Your task to perform on an android device: turn on the 24-hour format for clock Image 0: 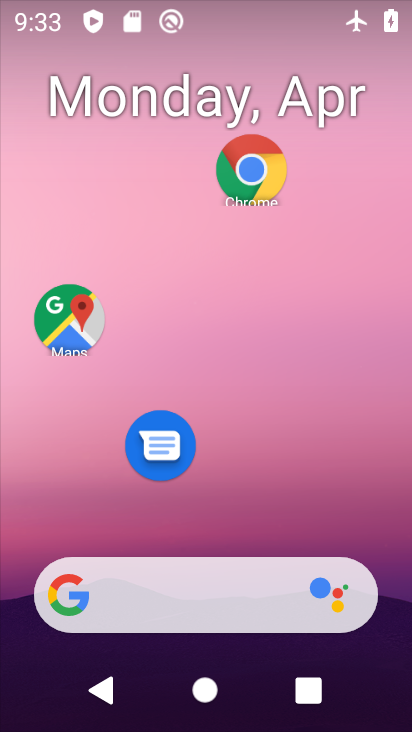
Step 0: drag from (219, 530) to (199, 140)
Your task to perform on an android device: turn on the 24-hour format for clock Image 1: 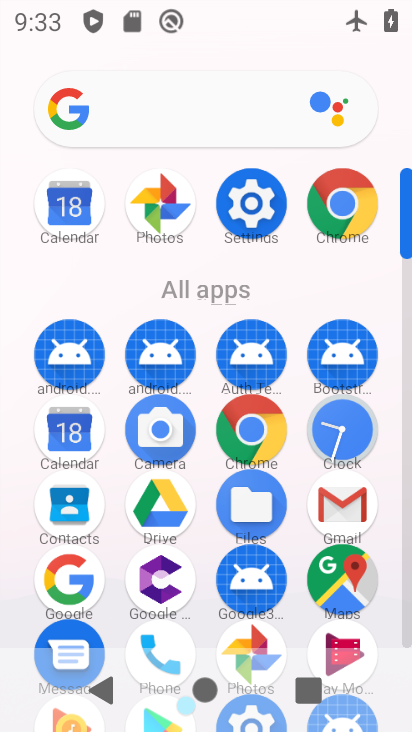
Step 1: click (332, 416)
Your task to perform on an android device: turn on the 24-hour format for clock Image 2: 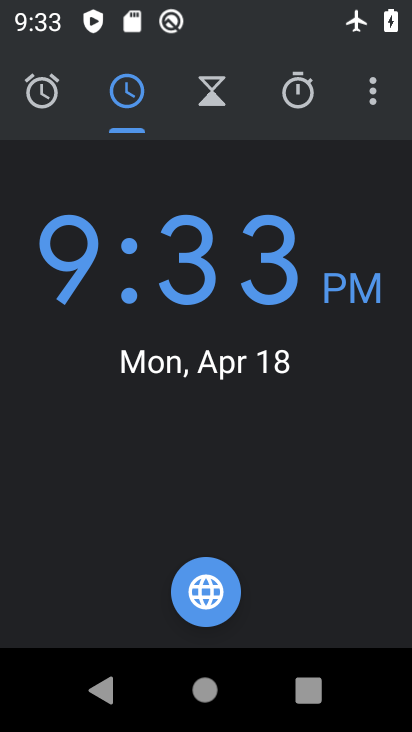
Step 2: click (378, 90)
Your task to perform on an android device: turn on the 24-hour format for clock Image 3: 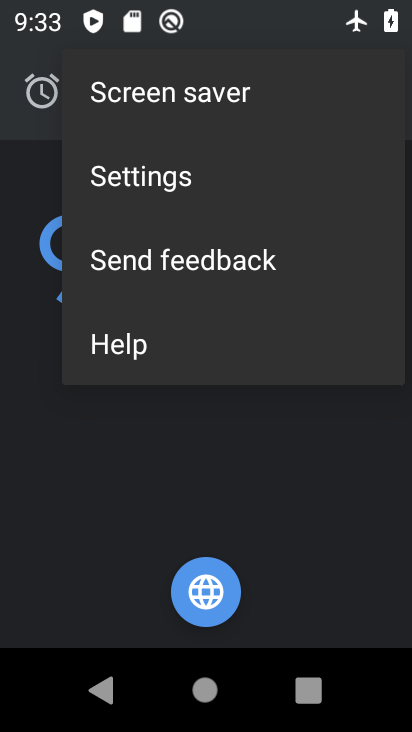
Step 3: click (187, 173)
Your task to perform on an android device: turn on the 24-hour format for clock Image 4: 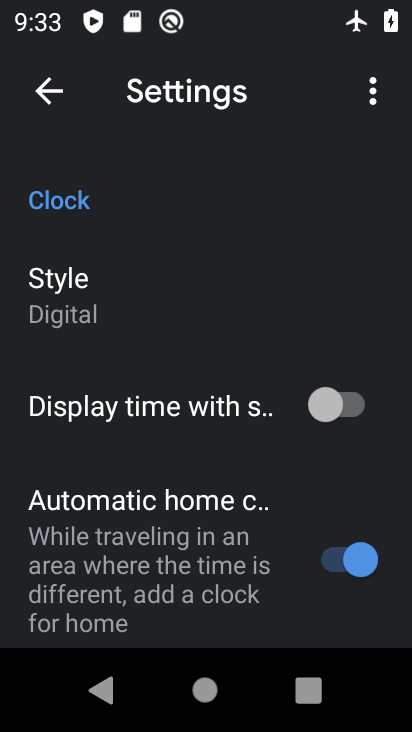
Step 4: drag from (185, 497) to (163, 187)
Your task to perform on an android device: turn on the 24-hour format for clock Image 5: 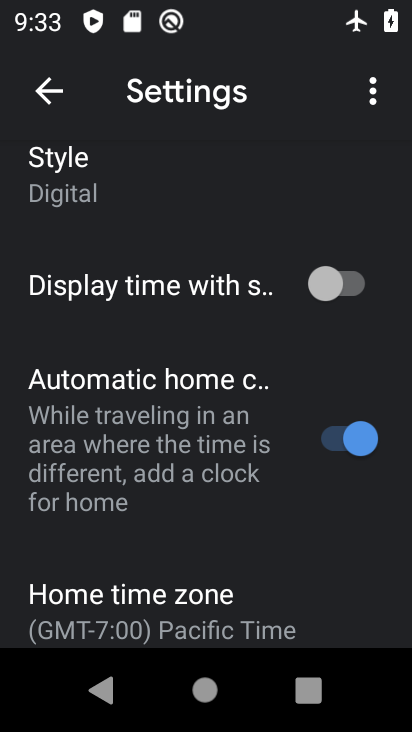
Step 5: drag from (184, 499) to (181, 213)
Your task to perform on an android device: turn on the 24-hour format for clock Image 6: 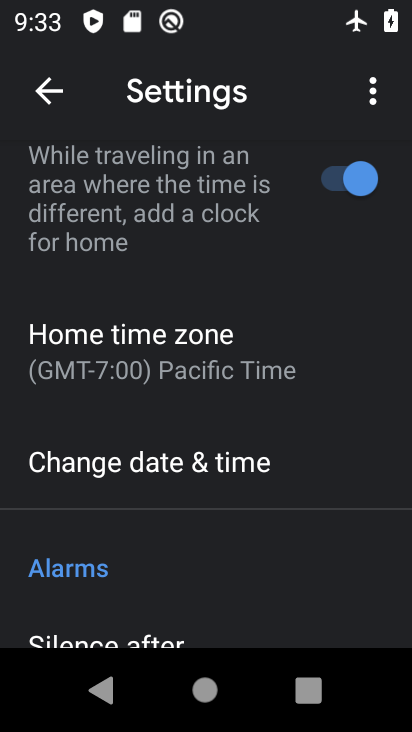
Step 6: click (179, 465)
Your task to perform on an android device: turn on the 24-hour format for clock Image 7: 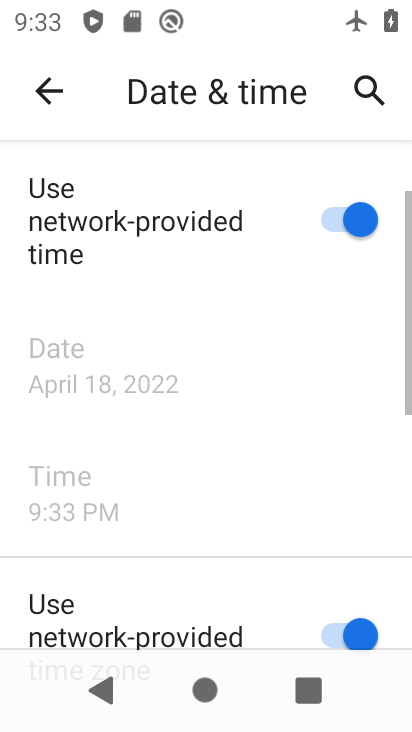
Step 7: drag from (180, 464) to (184, 150)
Your task to perform on an android device: turn on the 24-hour format for clock Image 8: 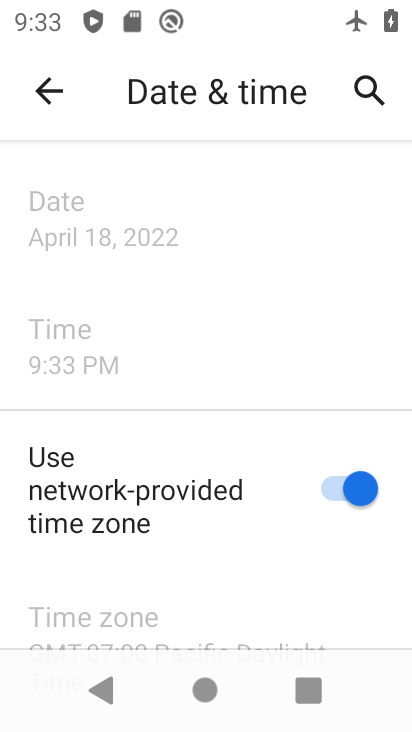
Step 8: drag from (225, 471) to (225, 225)
Your task to perform on an android device: turn on the 24-hour format for clock Image 9: 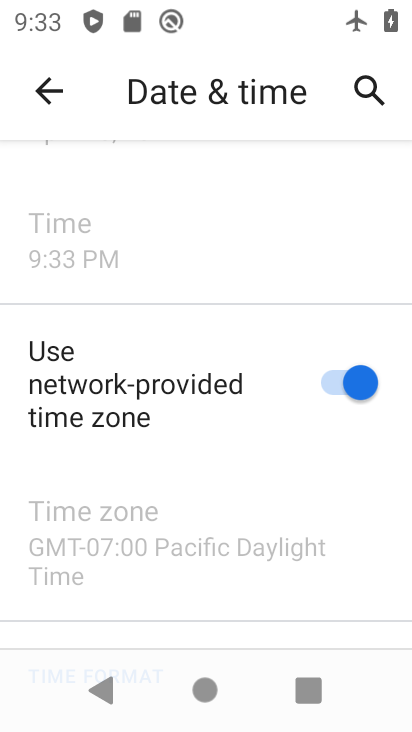
Step 9: drag from (327, 374) to (291, 192)
Your task to perform on an android device: turn on the 24-hour format for clock Image 10: 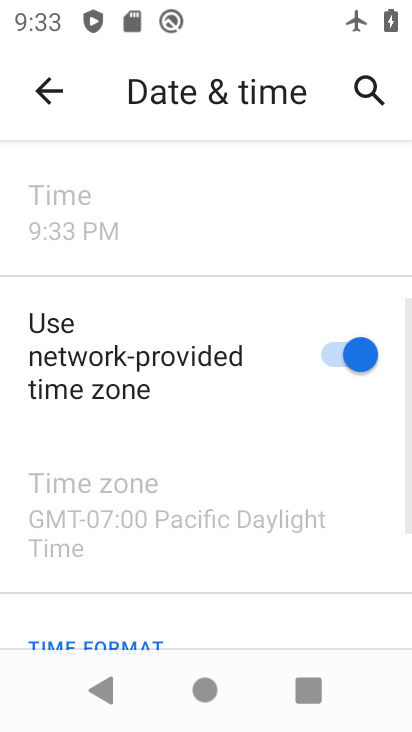
Step 10: drag from (244, 461) to (241, 220)
Your task to perform on an android device: turn on the 24-hour format for clock Image 11: 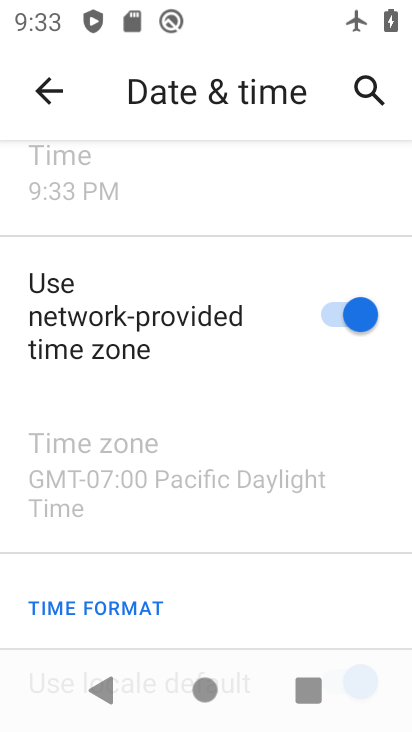
Step 11: drag from (236, 475) to (232, 196)
Your task to perform on an android device: turn on the 24-hour format for clock Image 12: 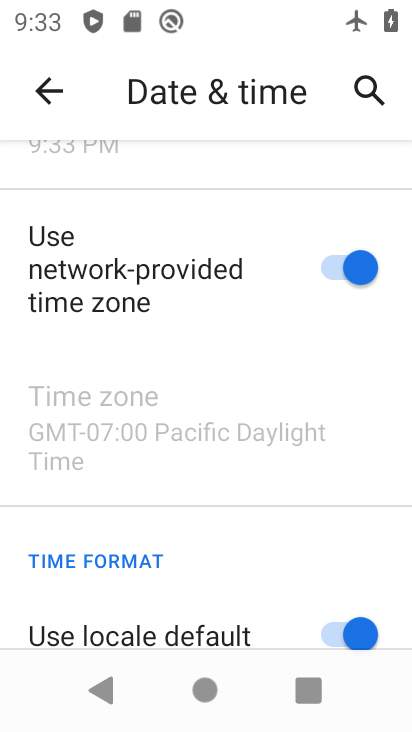
Step 12: drag from (239, 487) to (229, 176)
Your task to perform on an android device: turn on the 24-hour format for clock Image 13: 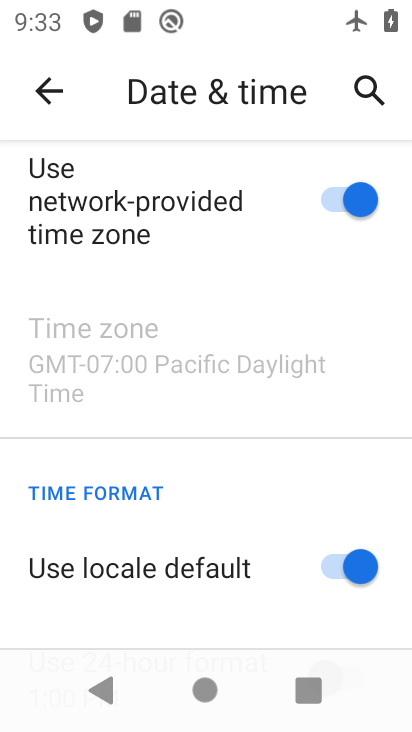
Step 13: drag from (207, 463) to (221, 163)
Your task to perform on an android device: turn on the 24-hour format for clock Image 14: 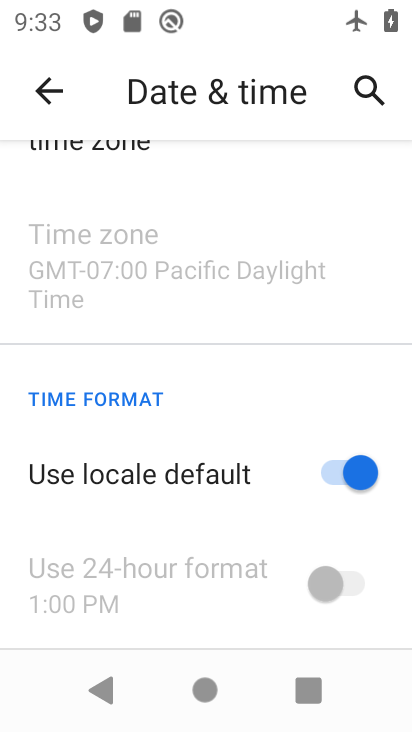
Step 14: drag from (237, 544) to (237, 302)
Your task to perform on an android device: turn on the 24-hour format for clock Image 15: 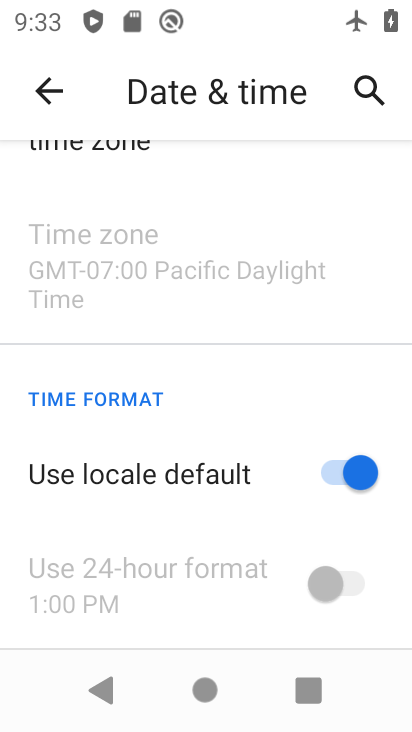
Step 15: click (325, 478)
Your task to perform on an android device: turn on the 24-hour format for clock Image 16: 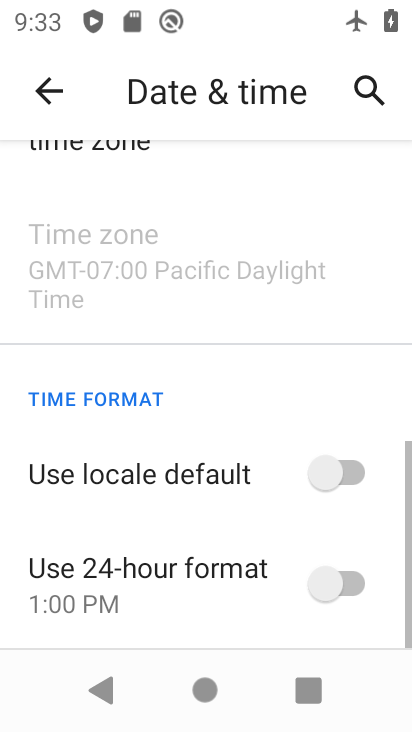
Step 16: click (359, 586)
Your task to perform on an android device: turn on the 24-hour format for clock Image 17: 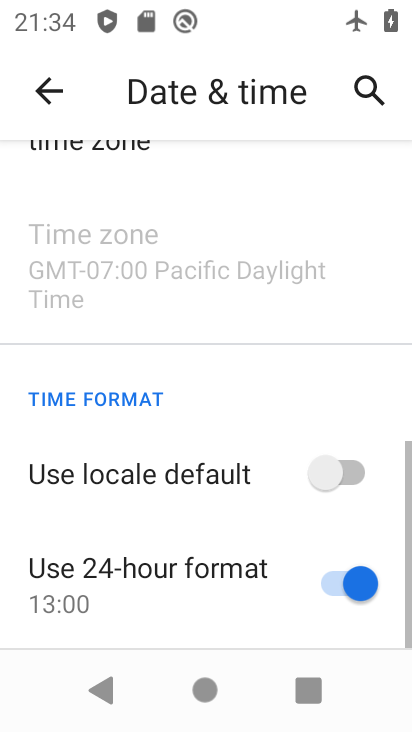
Step 17: task complete